Your task to perform on an android device: Go to privacy settings Image 0: 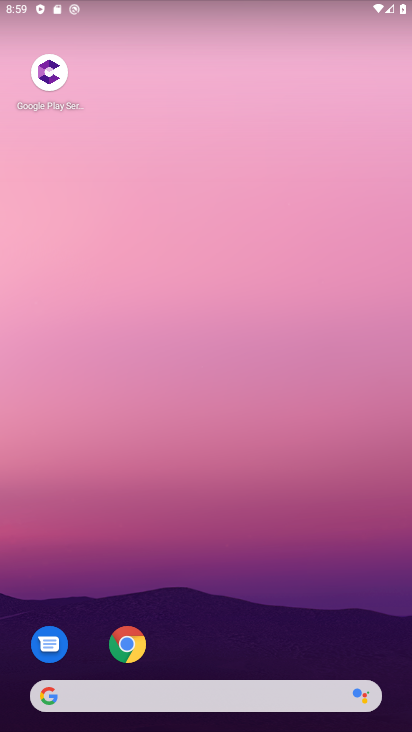
Step 0: drag from (333, 668) to (267, 5)
Your task to perform on an android device: Go to privacy settings Image 1: 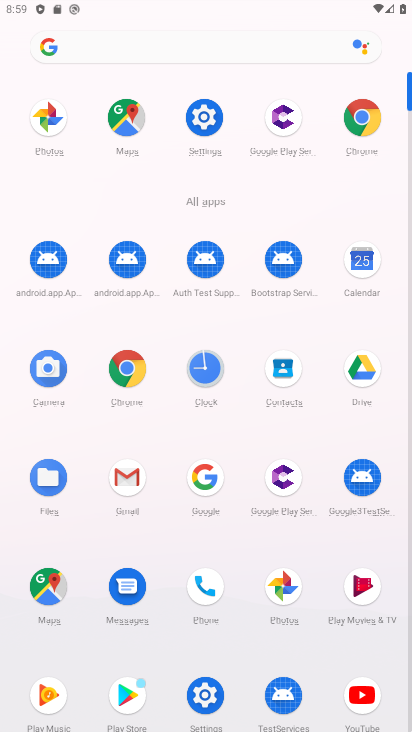
Step 1: click (201, 119)
Your task to perform on an android device: Go to privacy settings Image 2: 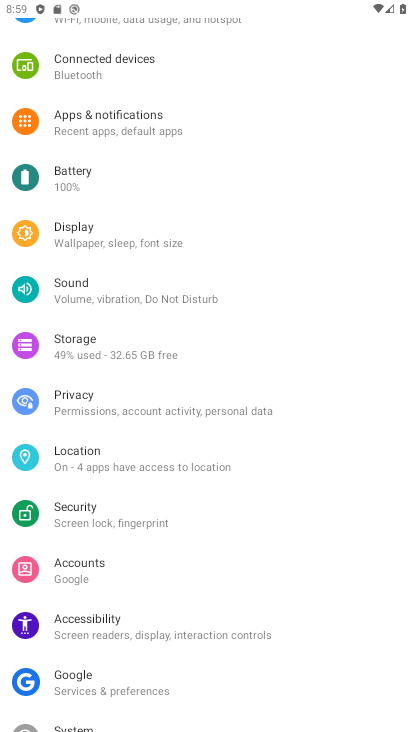
Step 2: click (99, 407)
Your task to perform on an android device: Go to privacy settings Image 3: 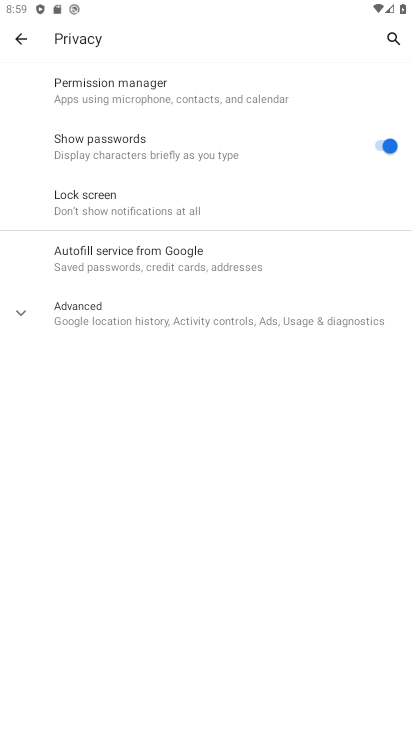
Step 3: task complete